Your task to perform on an android device: Open Google Maps and go to "Timeline" Image 0: 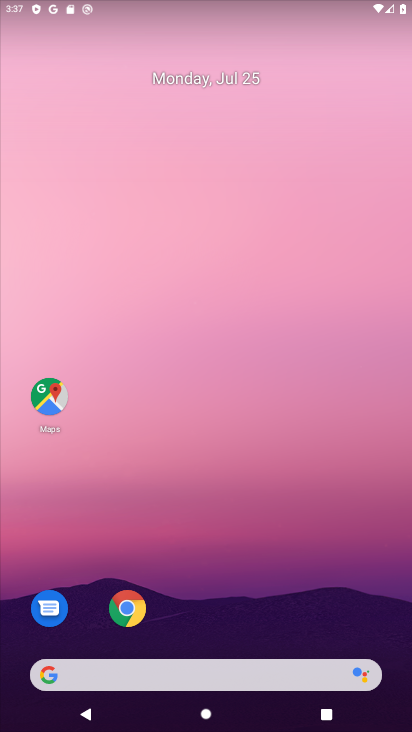
Step 0: drag from (216, 630) to (250, 80)
Your task to perform on an android device: Open Google Maps and go to "Timeline" Image 1: 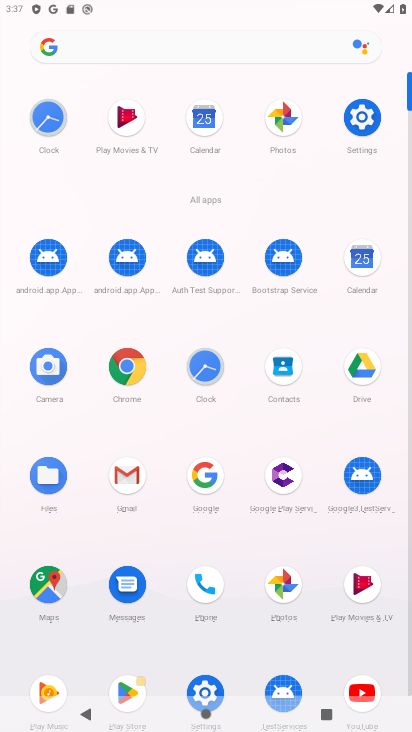
Step 1: click (45, 580)
Your task to perform on an android device: Open Google Maps and go to "Timeline" Image 2: 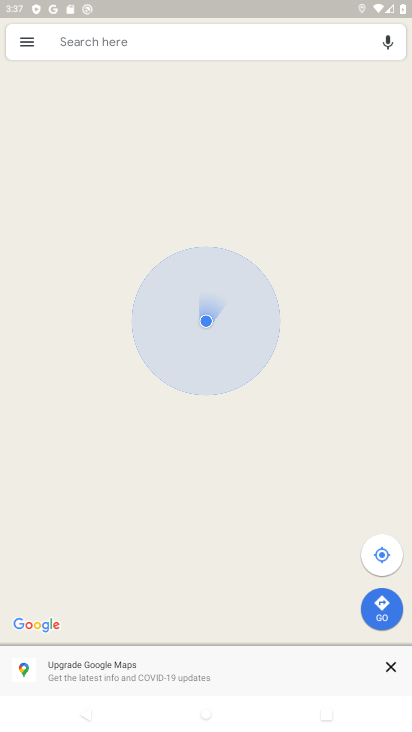
Step 2: click (387, 672)
Your task to perform on an android device: Open Google Maps and go to "Timeline" Image 3: 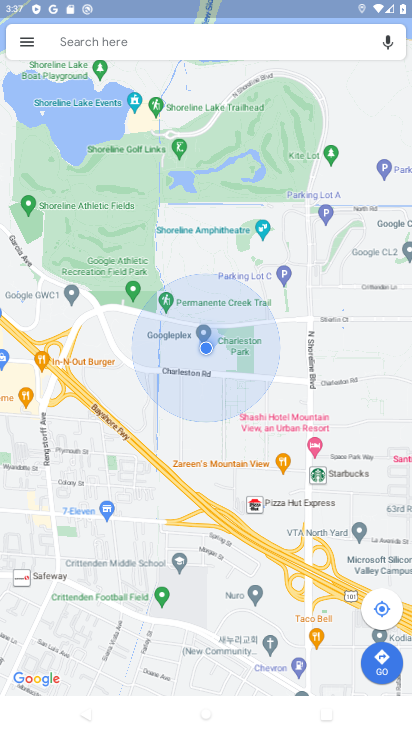
Step 3: click (19, 36)
Your task to perform on an android device: Open Google Maps and go to "Timeline" Image 4: 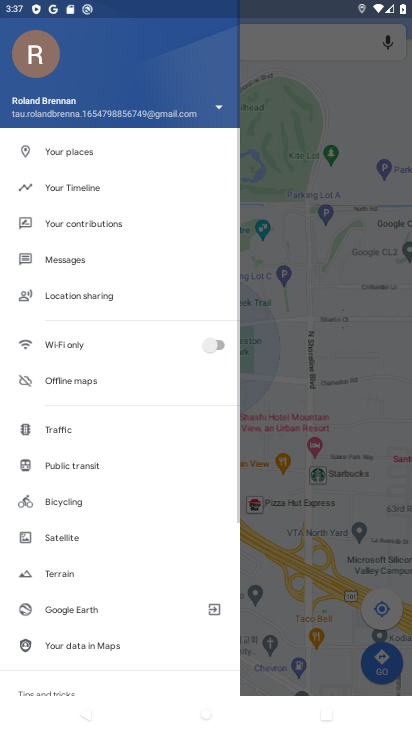
Step 4: click (81, 190)
Your task to perform on an android device: Open Google Maps and go to "Timeline" Image 5: 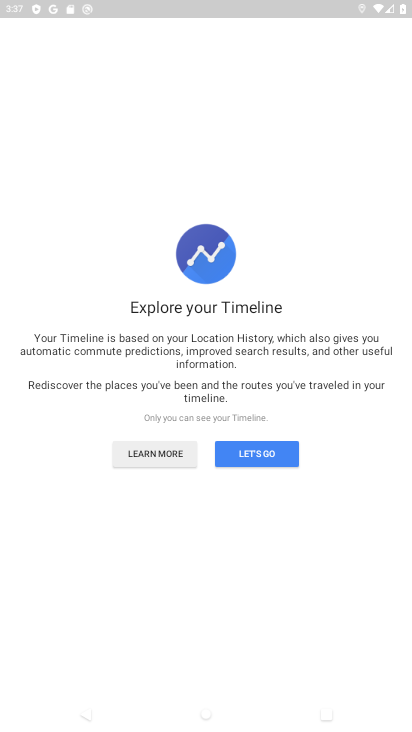
Step 5: click (259, 451)
Your task to perform on an android device: Open Google Maps and go to "Timeline" Image 6: 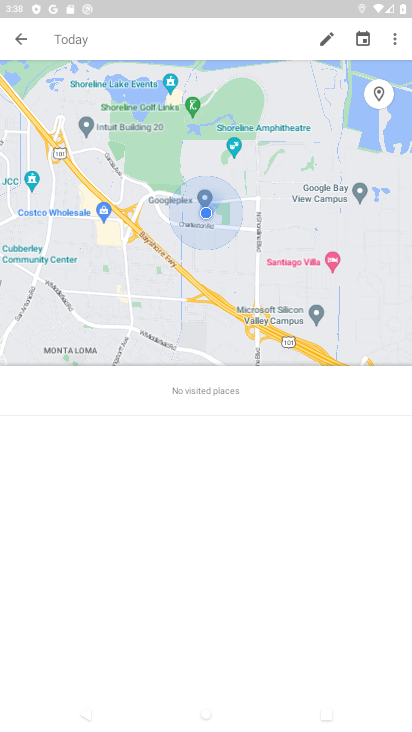
Step 6: task complete